Your task to perform on an android device: Go to internet settings Image 0: 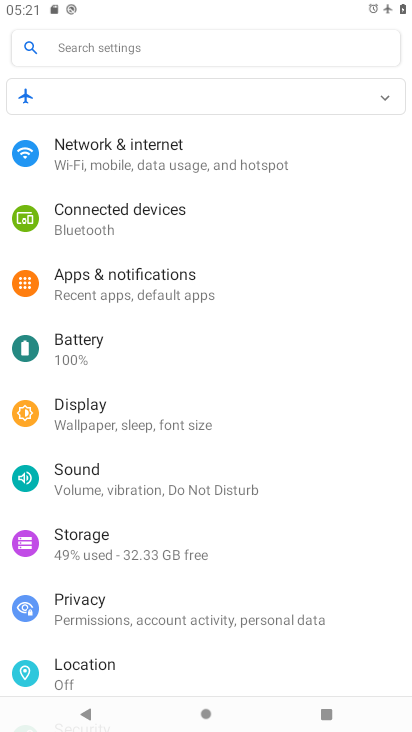
Step 0: click (272, 153)
Your task to perform on an android device: Go to internet settings Image 1: 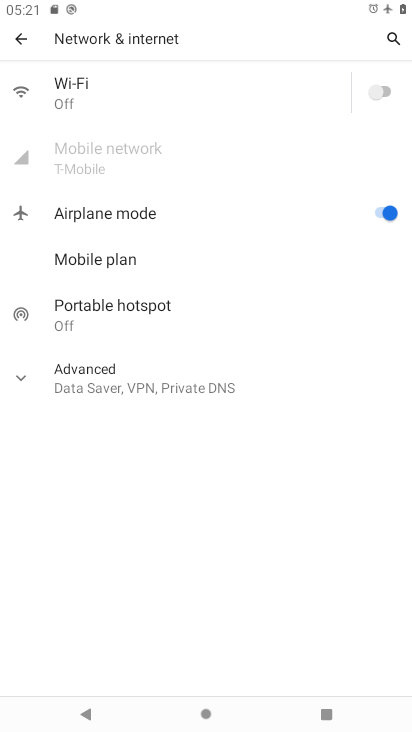
Step 1: task complete